Your task to perform on an android device: toggle wifi Image 0: 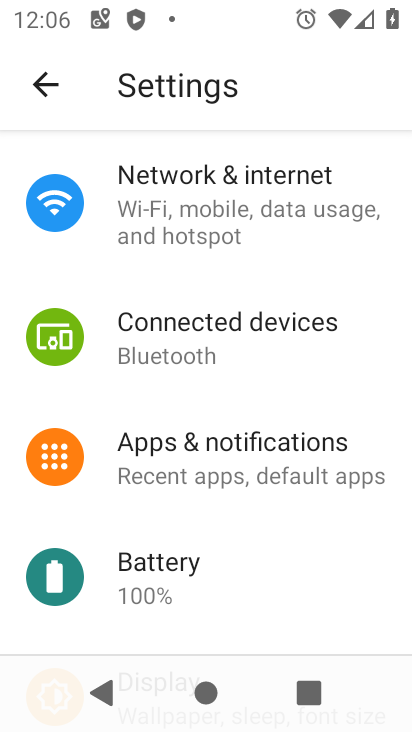
Step 0: click (204, 228)
Your task to perform on an android device: toggle wifi Image 1: 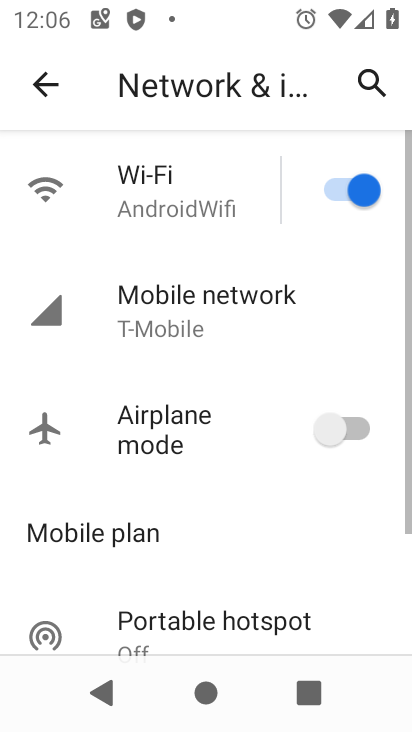
Step 1: click (362, 182)
Your task to perform on an android device: toggle wifi Image 2: 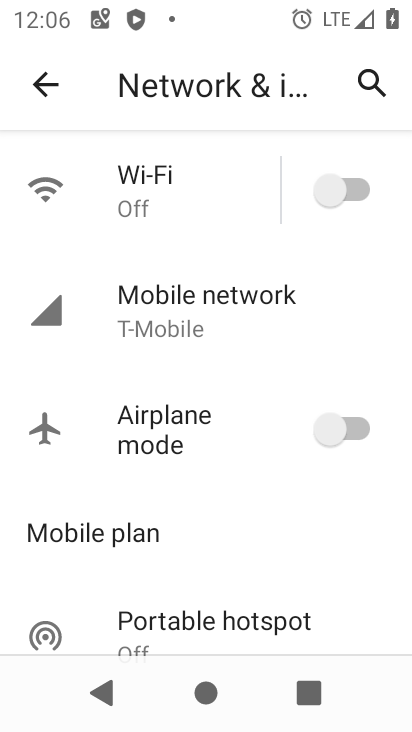
Step 2: task complete